Your task to perform on an android device: uninstall "Upside-Cash back on gas & food" Image 0: 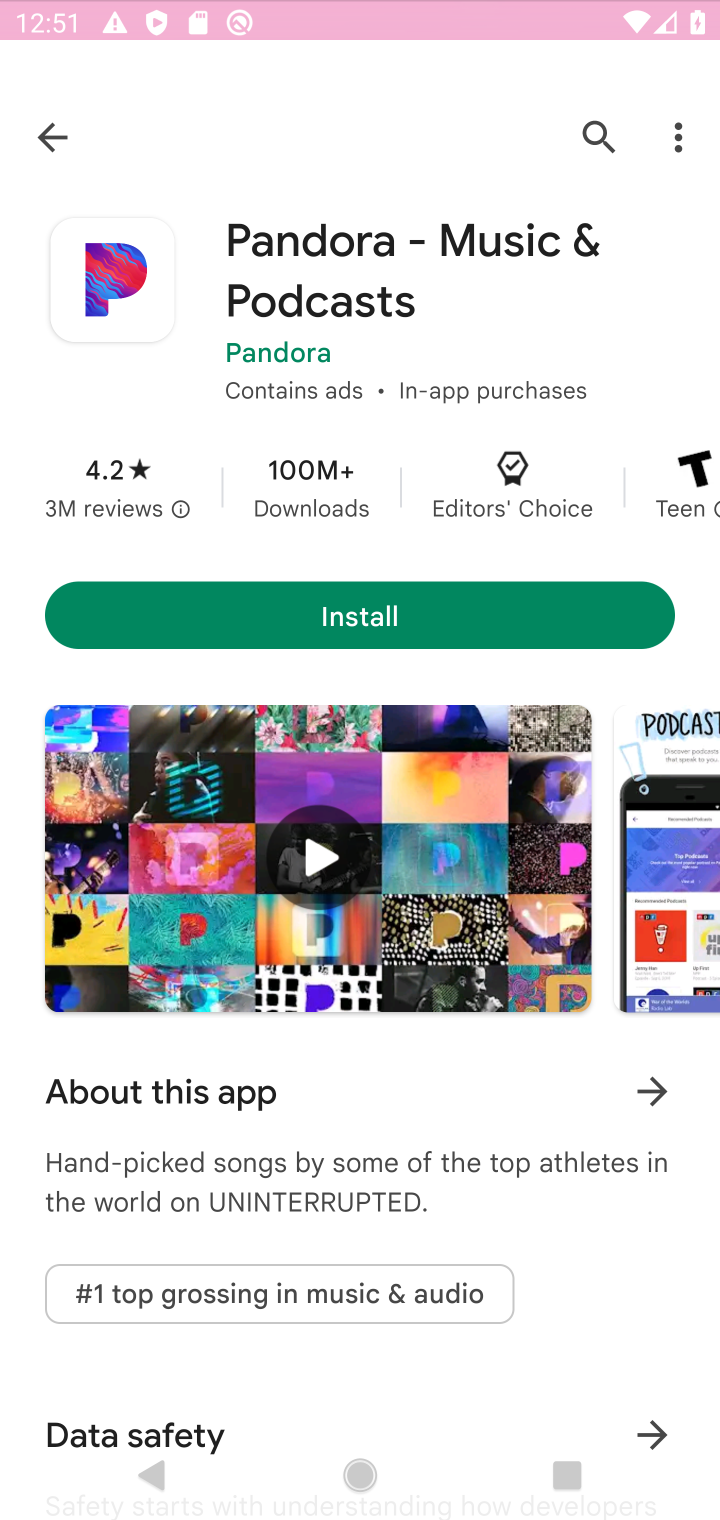
Step 0: press home button
Your task to perform on an android device: uninstall "Upside-Cash back on gas & food" Image 1: 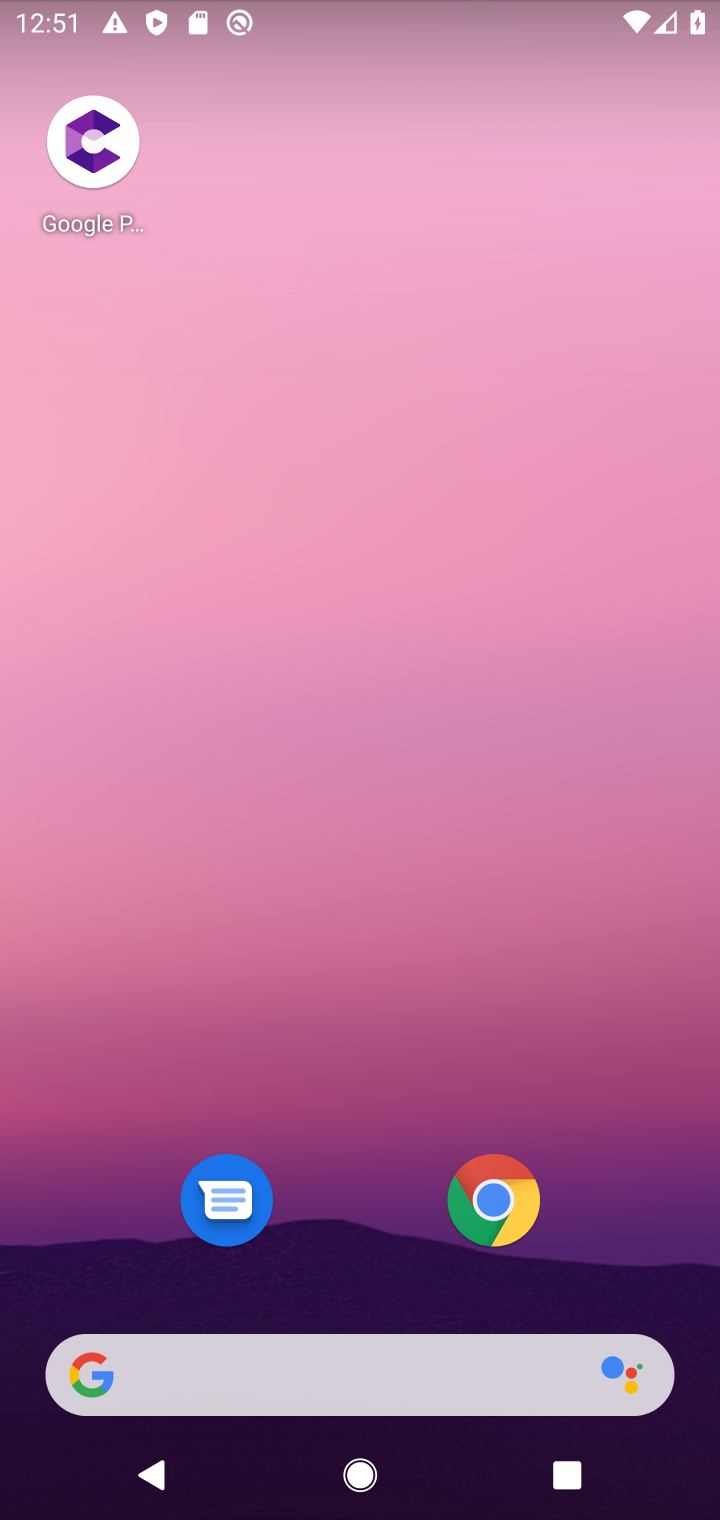
Step 1: click (479, 161)
Your task to perform on an android device: uninstall "Upside-Cash back on gas & food" Image 2: 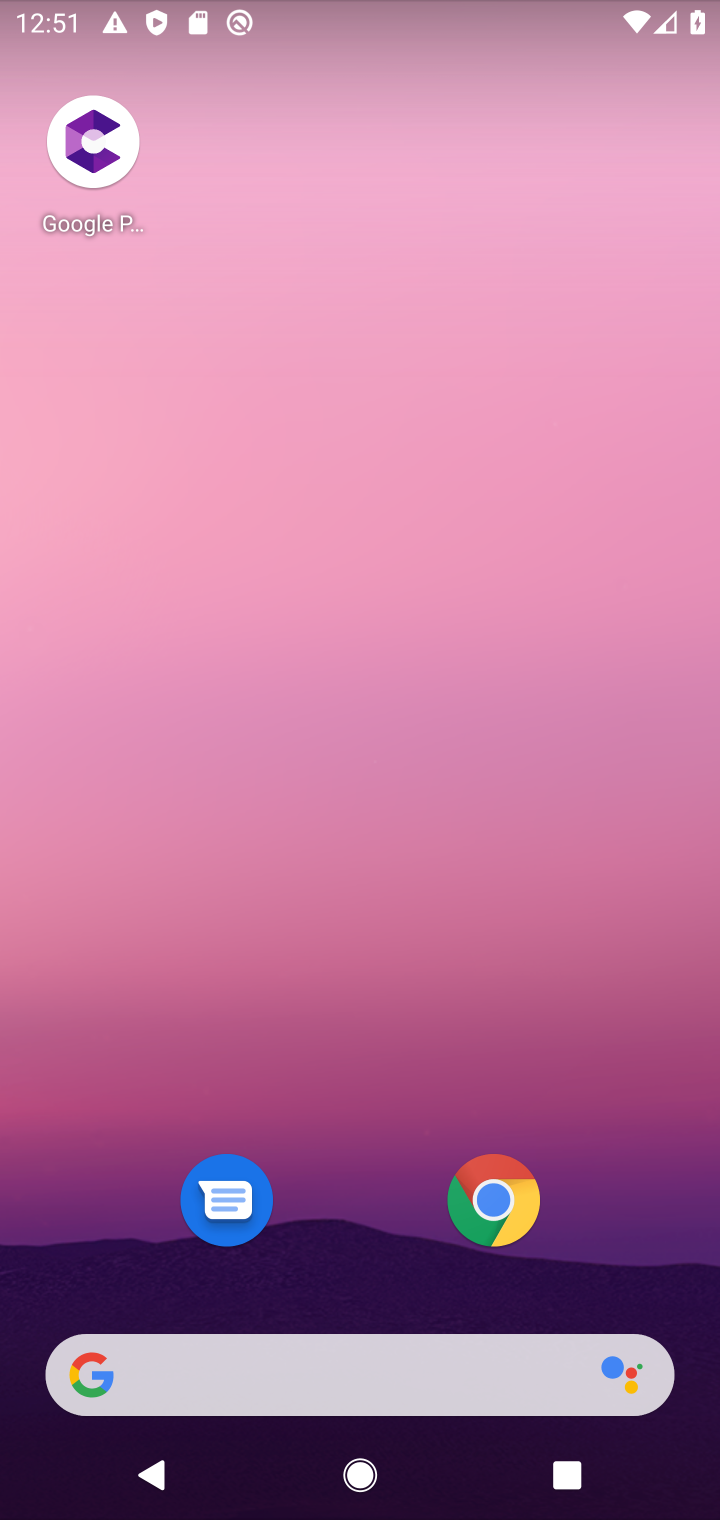
Step 2: drag from (299, 1286) to (401, 51)
Your task to perform on an android device: uninstall "Upside-Cash back on gas & food" Image 3: 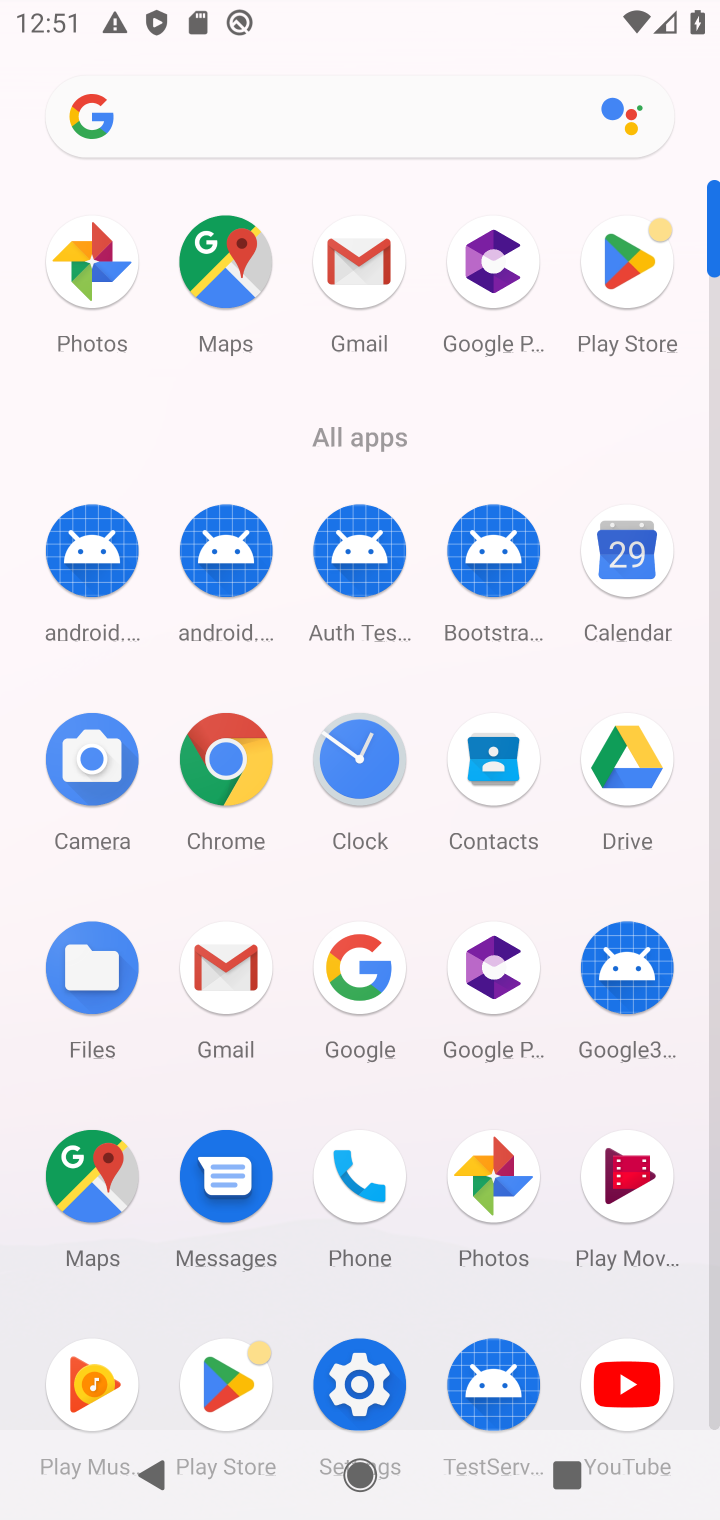
Step 3: drag from (423, 1217) to (520, 515)
Your task to perform on an android device: uninstall "Upside-Cash back on gas & food" Image 4: 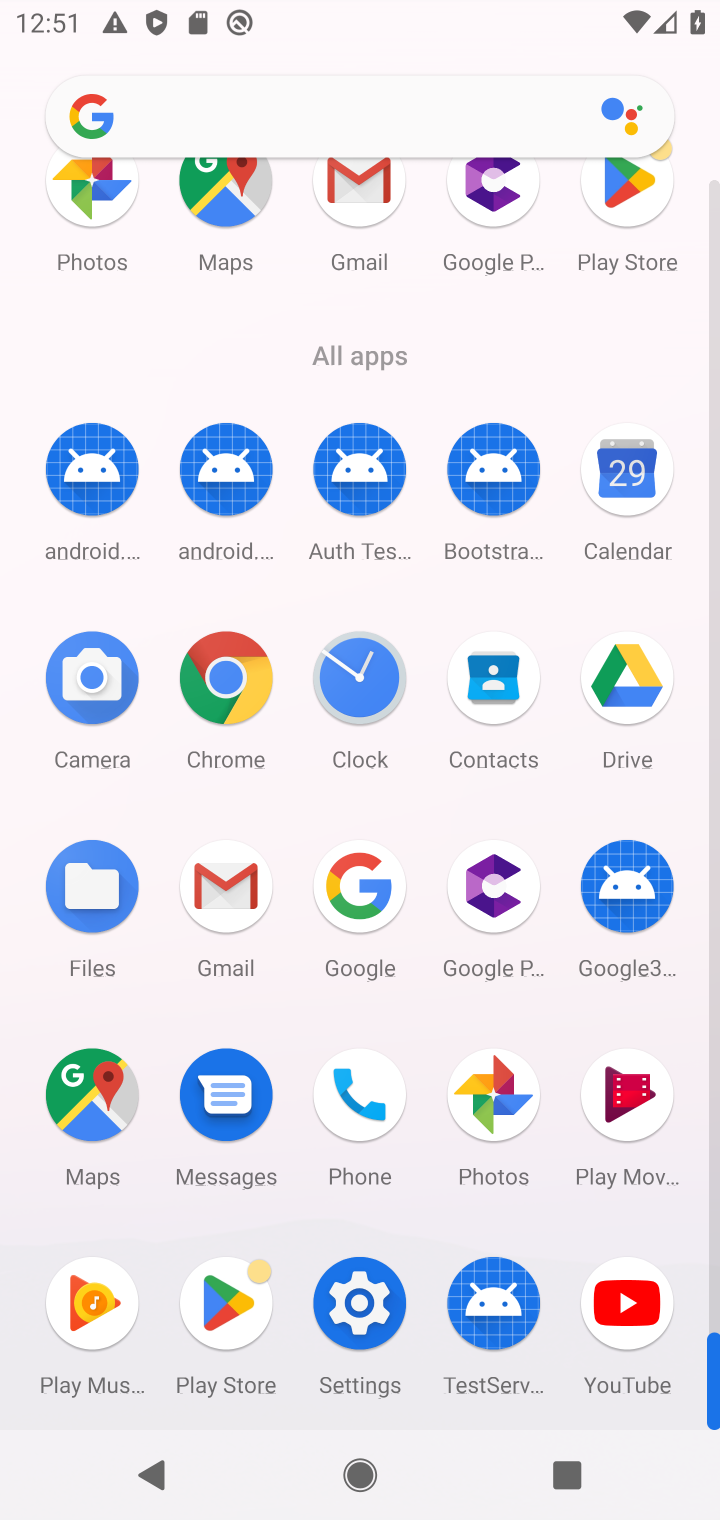
Step 4: click (221, 1317)
Your task to perform on an android device: uninstall "Upside-Cash back on gas & food" Image 5: 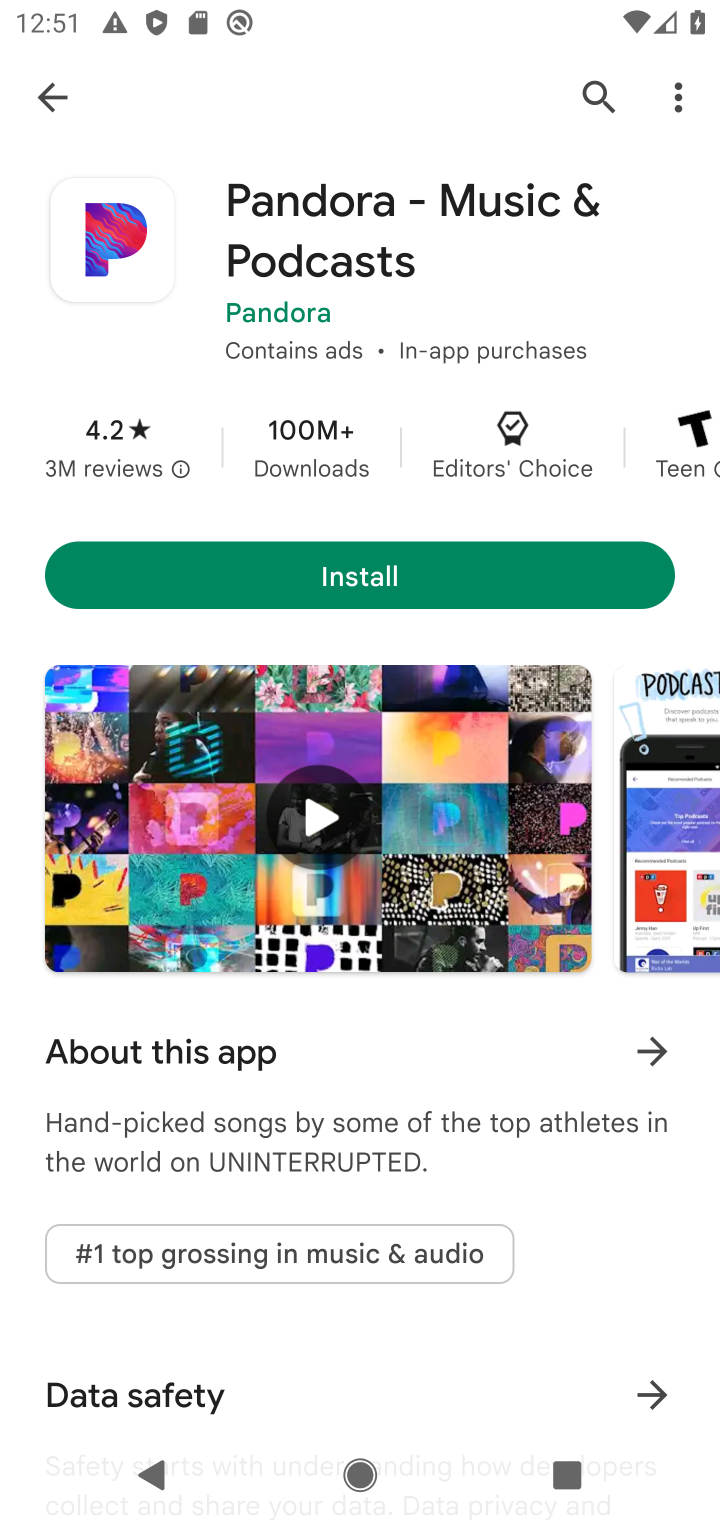
Step 5: click (594, 92)
Your task to perform on an android device: uninstall "Upside-Cash back on gas & food" Image 6: 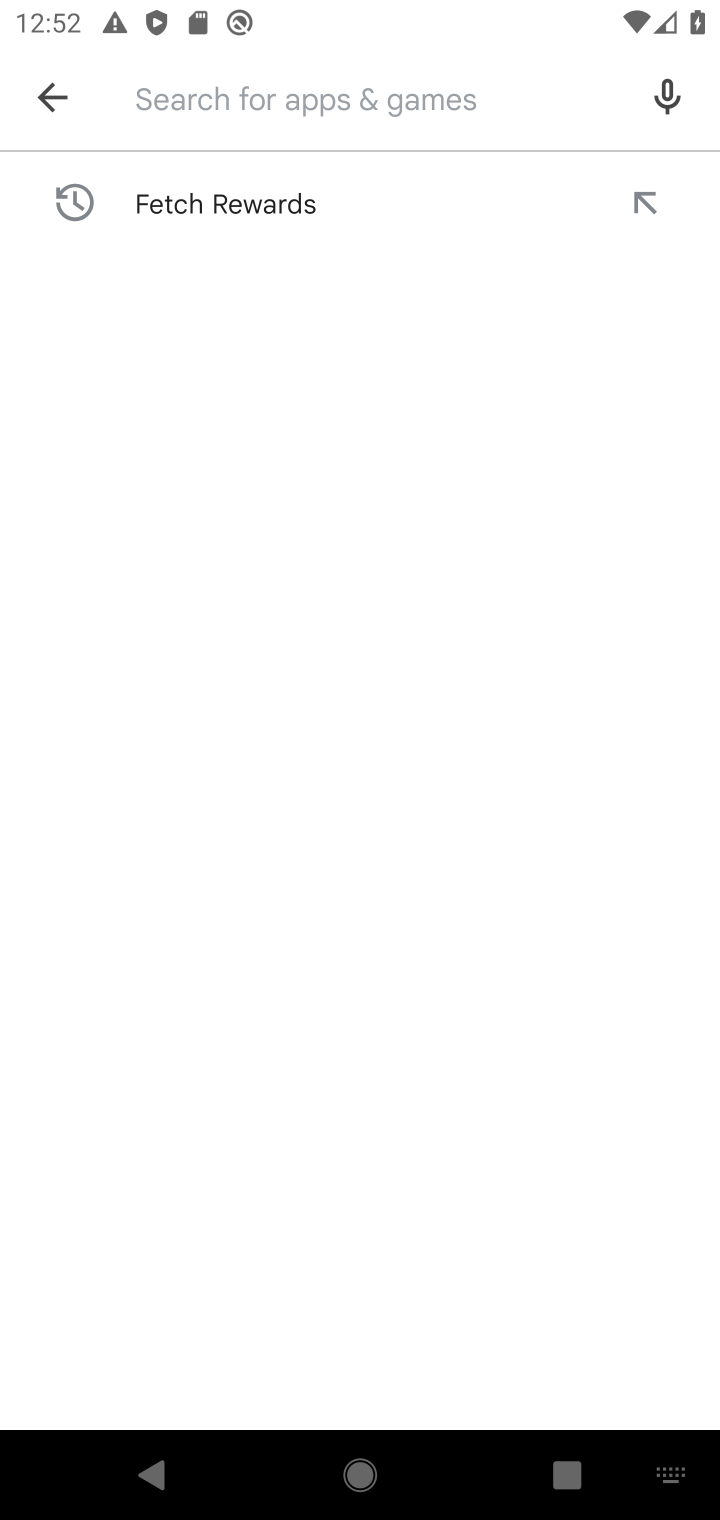
Step 6: type "Upside-Cash back on gas &food"
Your task to perform on an android device: uninstall "Upside-Cash back on gas & food" Image 7: 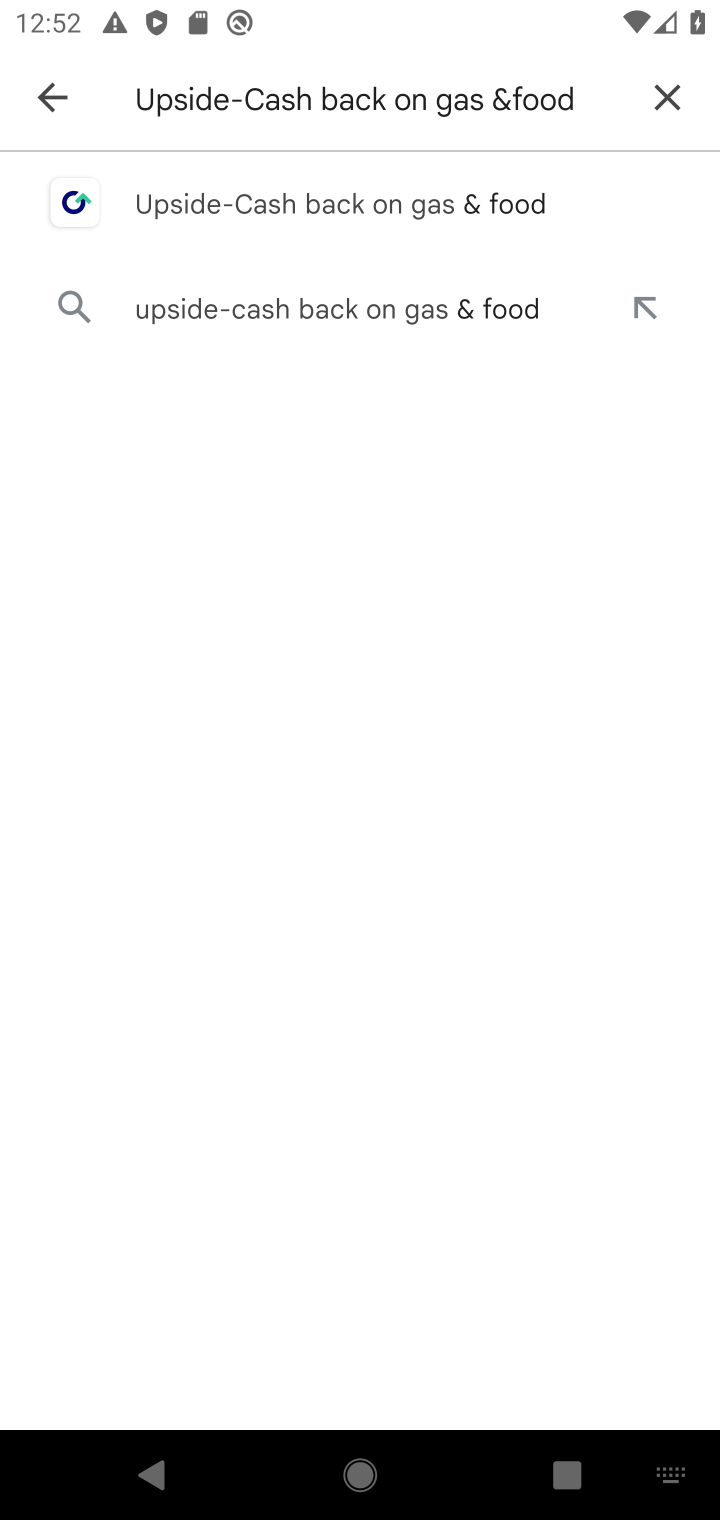
Step 7: press enter
Your task to perform on an android device: uninstall "Upside-Cash back on gas & food" Image 8: 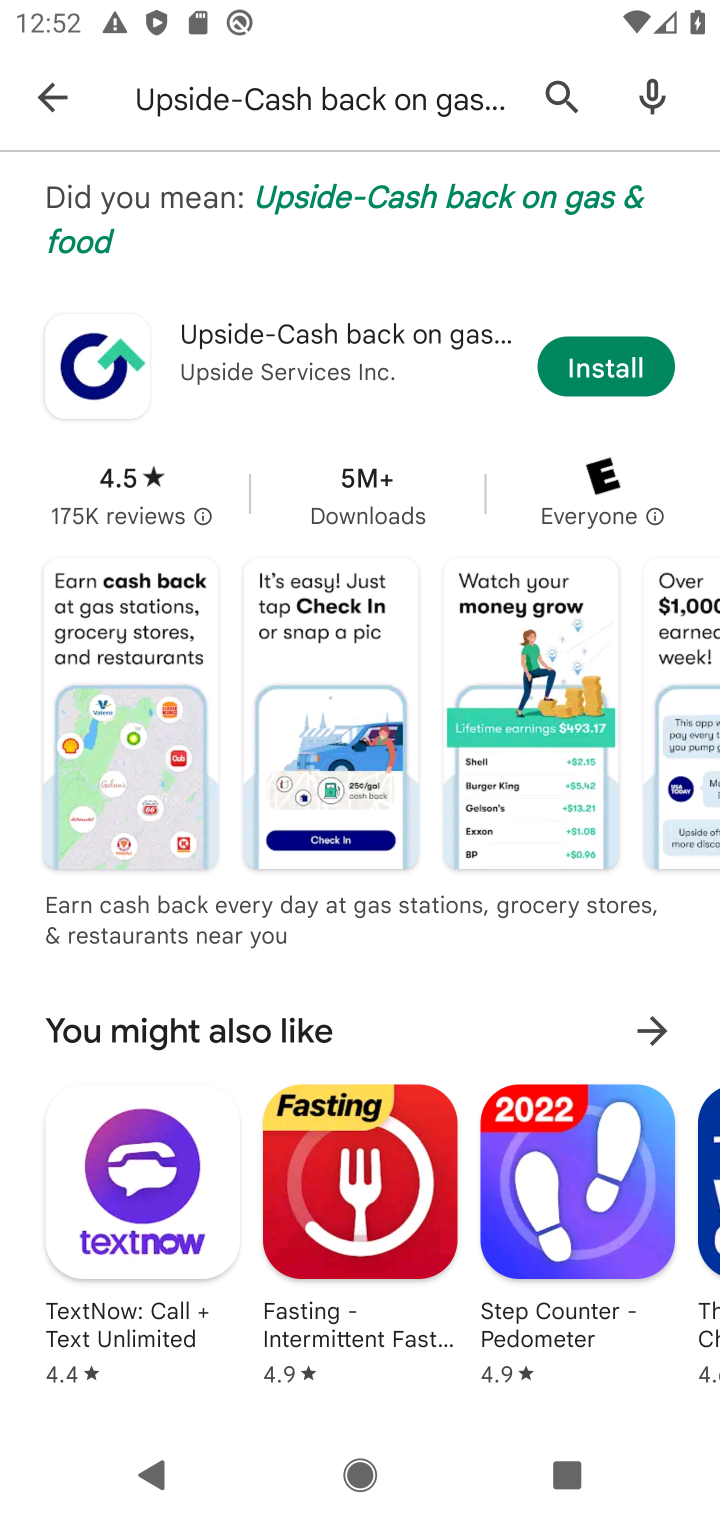
Step 8: task complete